Your task to perform on an android device: open app "Contacts" (install if not already installed) Image 0: 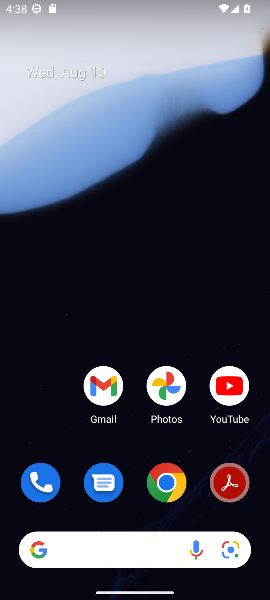
Step 0: drag from (144, 521) to (128, 17)
Your task to perform on an android device: open app "Contacts" (install if not already installed) Image 1: 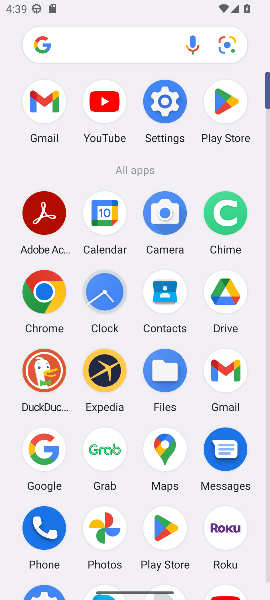
Step 1: click (164, 290)
Your task to perform on an android device: open app "Contacts" (install if not already installed) Image 2: 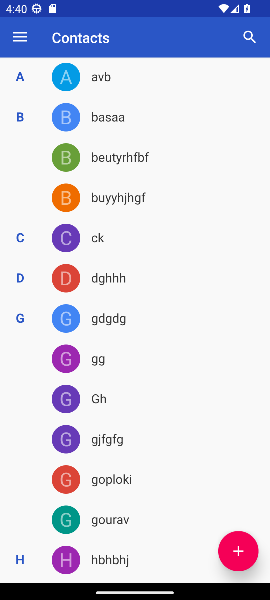
Step 2: task complete